Your task to perform on an android device: turn on bluetooth scan Image 0: 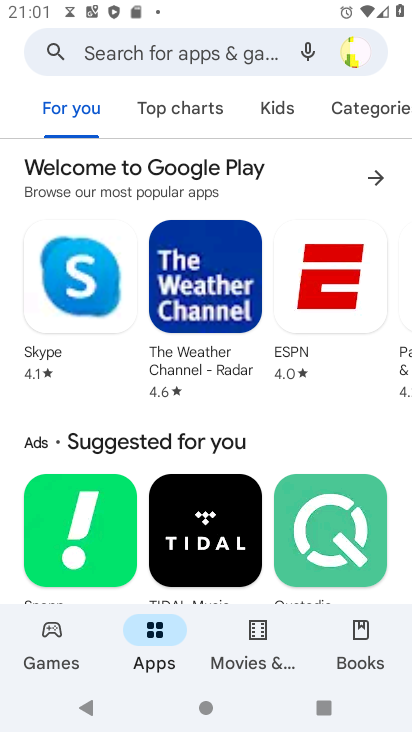
Step 0: press home button
Your task to perform on an android device: turn on bluetooth scan Image 1: 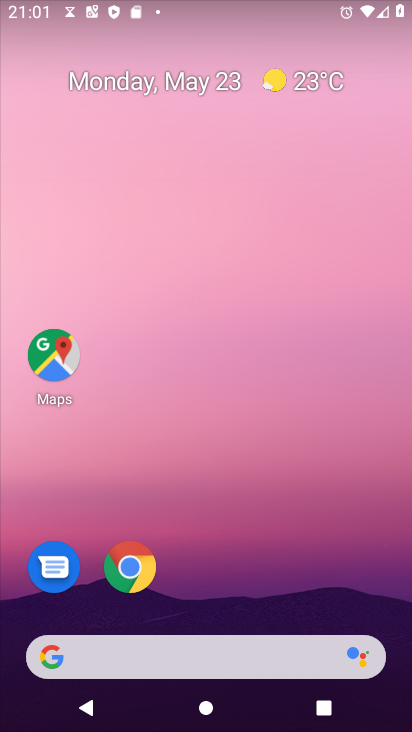
Step 1: drag from (260, 530) to (252, 303)
Your task to perform on an android device: turn on bluetooth scan Image 2: 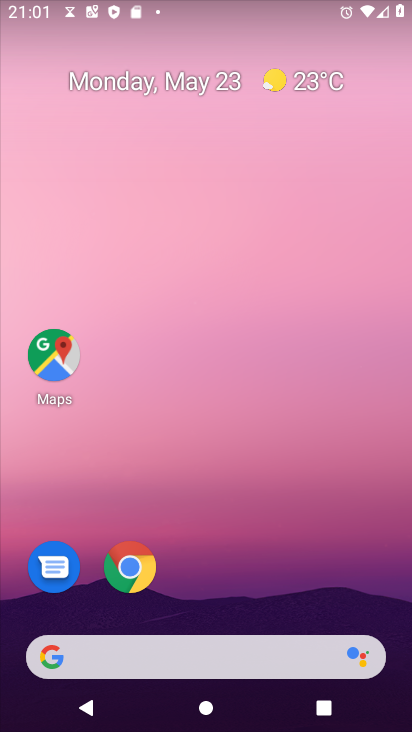
Step 2: drag from (226, 602) to (189, 256)
Your task to perform on an android device: turn on bluetooth scan Image 3: 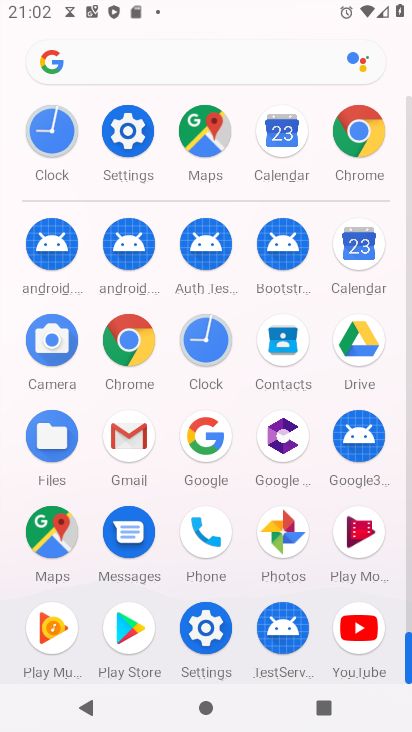
Step 3: click (120, 133)
Your task to perform on an android device: turn on bluetooth scan Image 4: 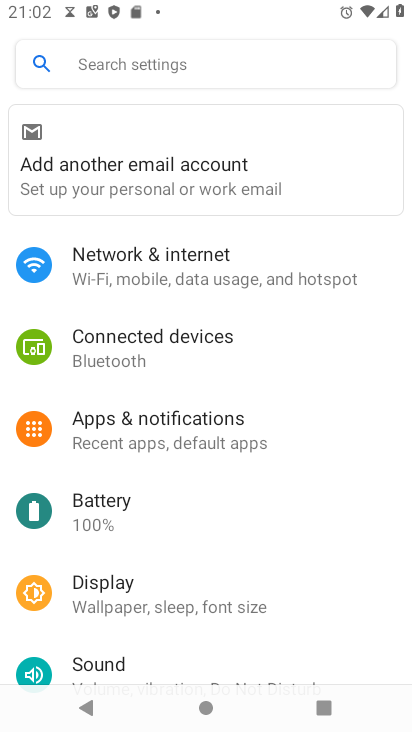
Step 4: click (182, 50)
Your task to perform on an android device: turn on bluetooth scan Image 5: 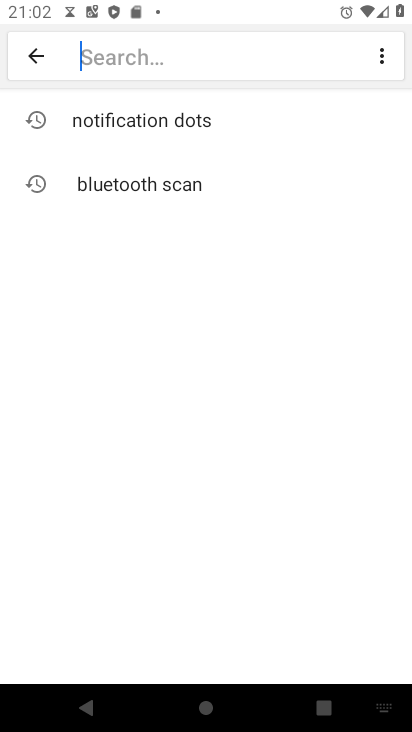
Step 5: click (199, 182)
Your task to perform on an android device: turn on bluetooth scan Image 6: 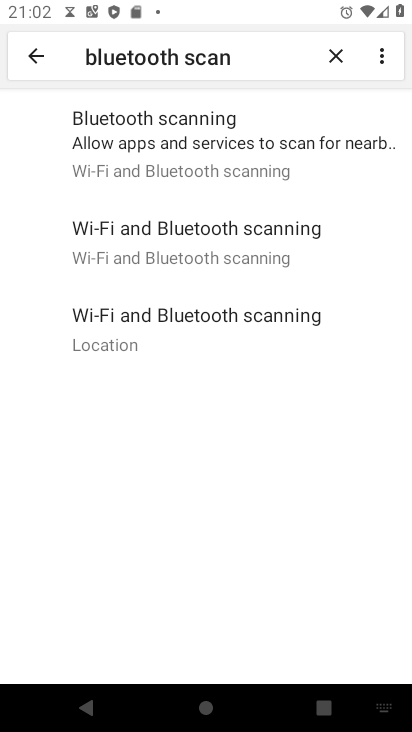
Step 6: click (194, 146)
Your task to perform on an android device: turn on bluetooth scan Image 7: 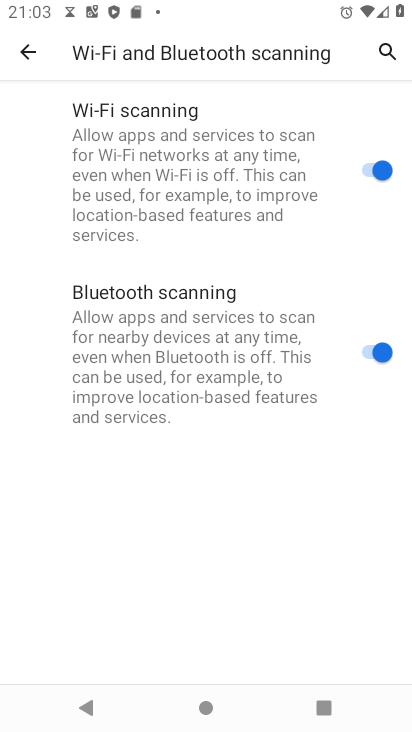
Step 7: task complete